Your task to perform on an android device: turn on priority inbox in the gmail app Image 0: 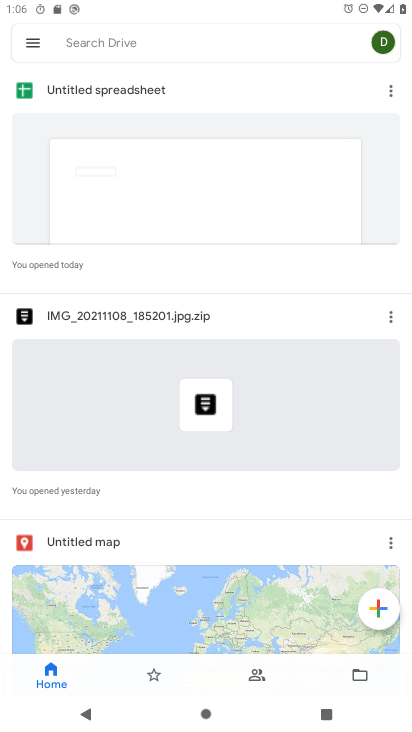
Step 0: press home button
Your task to perform on an android device: turn on priority inbox in the gmail app Image 1: 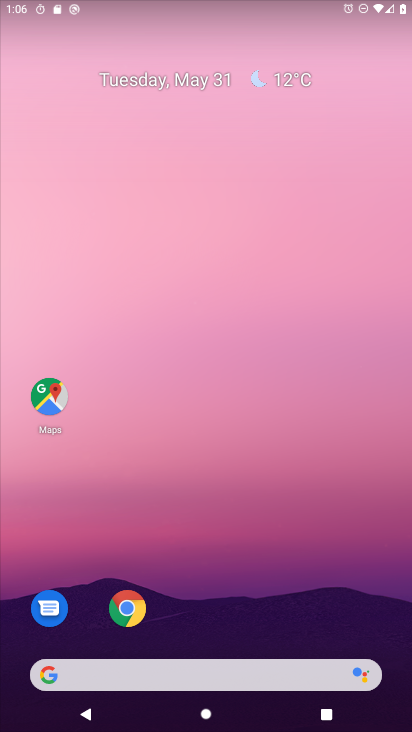
Step 1: drag from (289, 634) to (285, 11)
Your task to perform on an android device: turn on priority inbox in the gmail app Image 2: 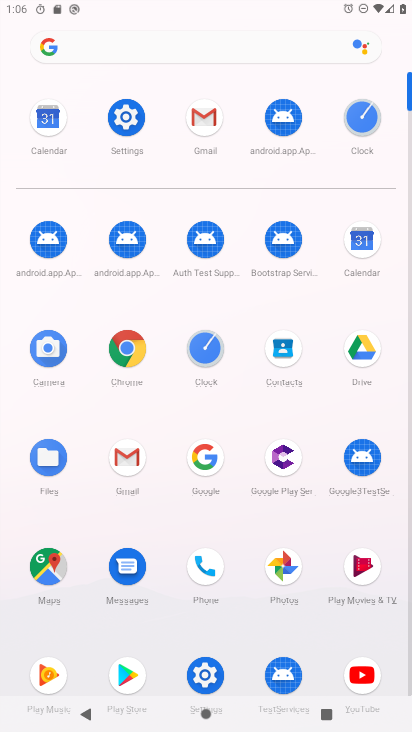
Step 2: click (203, 128)
Your task to perform on an android device: turn on priority inbox in the gmail app Image 3: 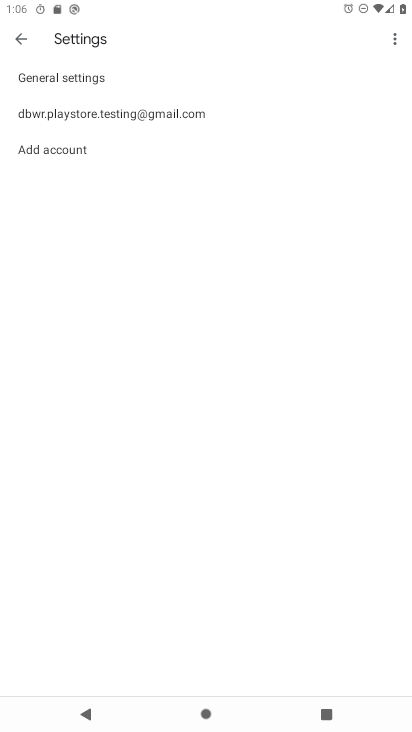
Step 3: click (106, 118)
Your task to perform on an android device: turn on priority inbox in the gmail app Image 4: 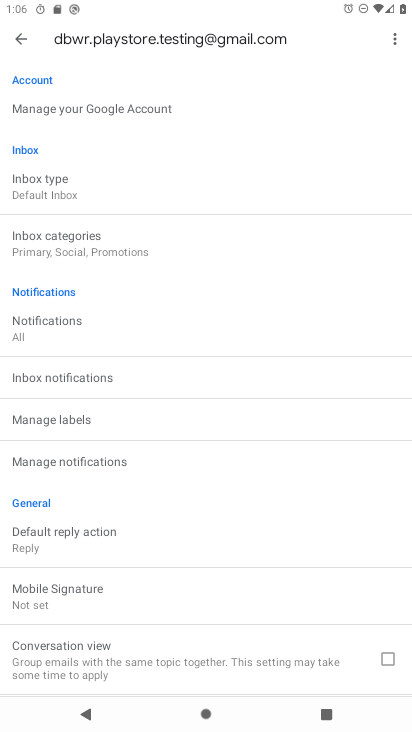
Step 4: click (31, 197)
Your task to perform on an android device: turn on priority inbox in the gmail app Image 5: 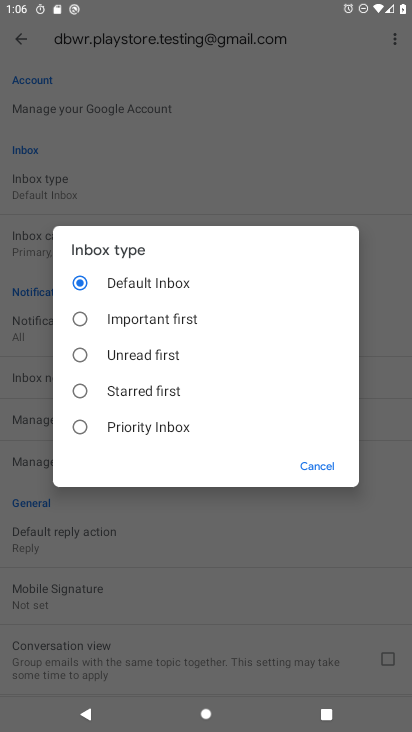
Step 5: click (96, 432)
Your task to perform on an android device: turn on priority inbox in the gmail app Image 6: 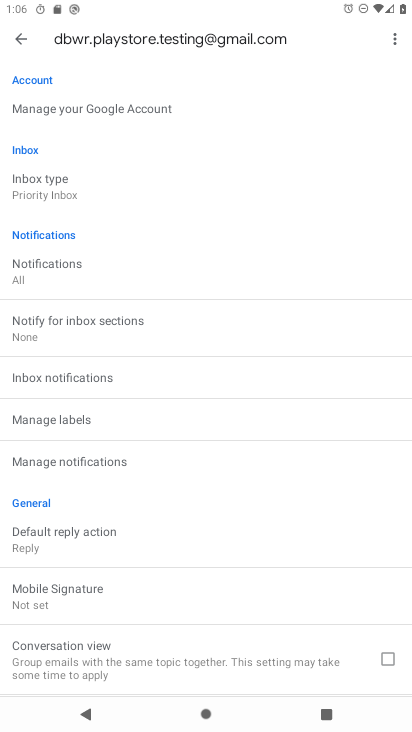
Step 6: task complete